Your task to perform on an android device: turn off wifi Image 0: 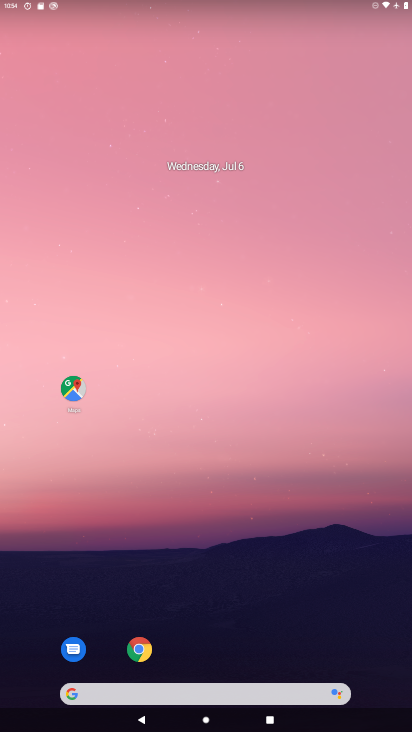
Step 0: drag from (376, 710) to (327, 97)
Your task to perform on an android device: turn off wifi Image 1: 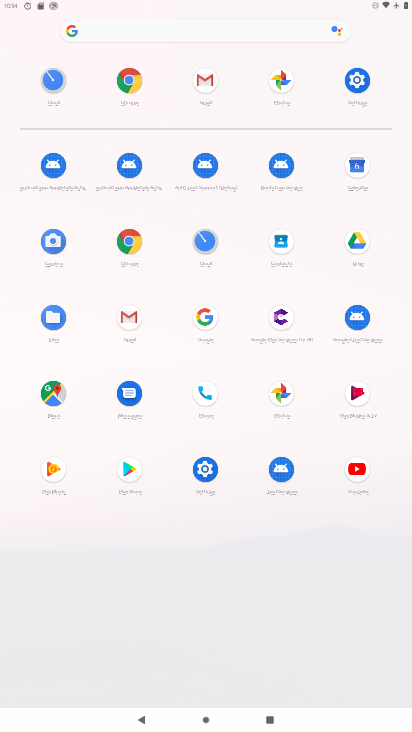
Step 1: click (363, 88)
Your task to perform on an android device: turn off wifi Image 2: 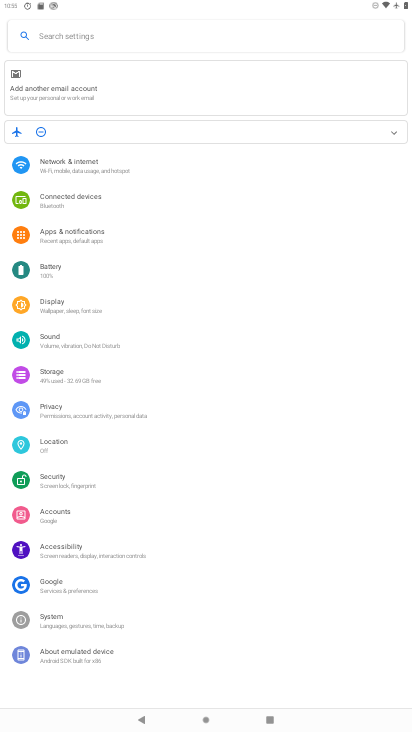
Step 2: click (81, 165)
Your task to perform on an android device: turn off wifi Image 3: 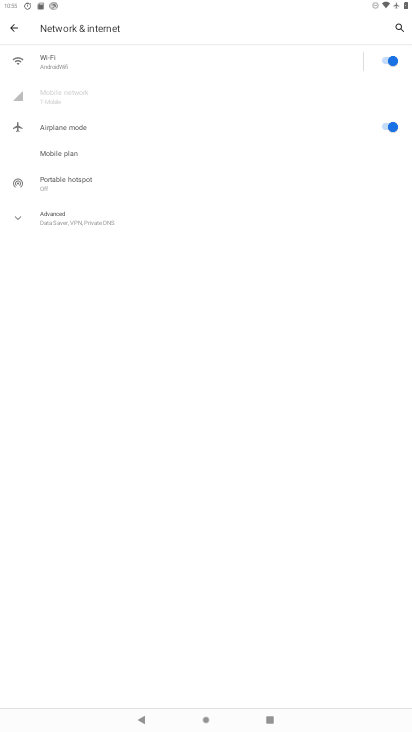
Step 3: click (382, 55)
Your task to perform on an android device: turn off wifi Image 4: 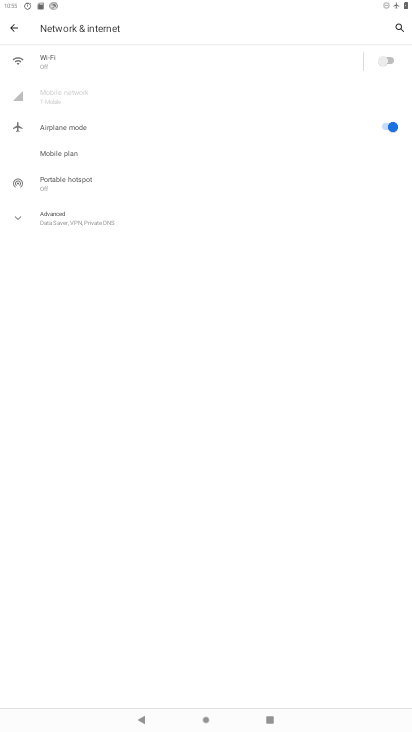
Step 4: task complete